Your task to perform on an android device: What's the news in Uruguay? Image 0: 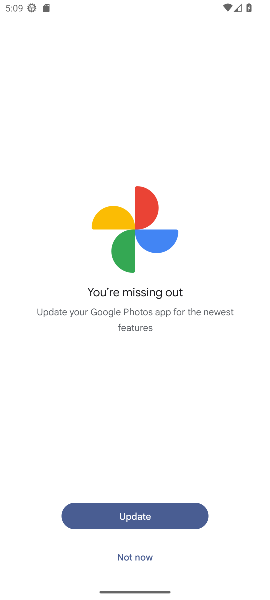
Step 0: press home button
Your task to perform on an android device: What's the news in Uruguay? Image 1: 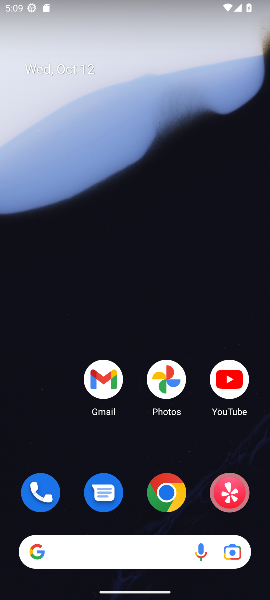
Step 1: click (165, 500)
Your task to perform on an android device: What's the news in Uruguay? Image 2: 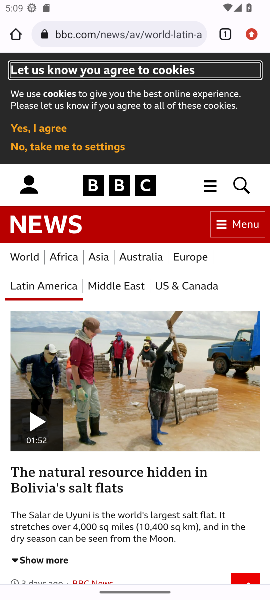
Step 2: click (106, 37)
Your task to perform on an android device: What's the news in Uruguay? Image 3: 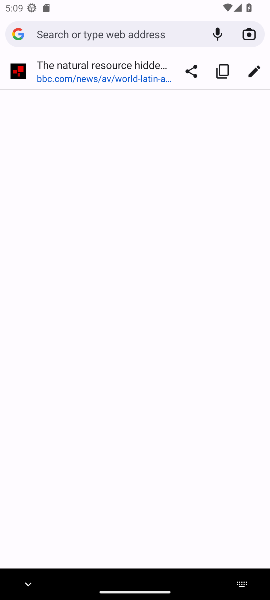
Step 3: type "Uruguay"
Your task to perform on an android device: What's the news in Uruguay? Image 4: 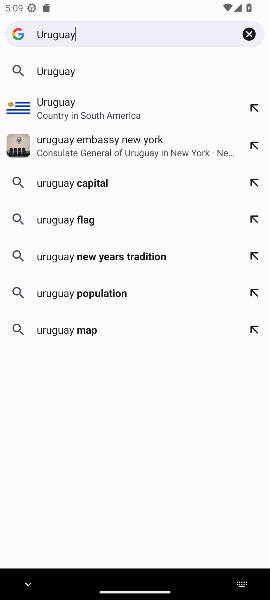
Step 4: type " "
Your task to perform on an android device: What's the news in Uruguay? Image 5: 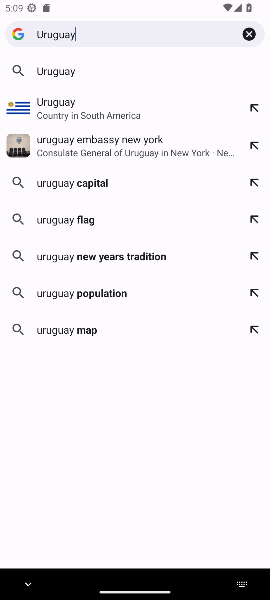
Step 5: click (58, 73)
Your task to perform on an android device: What's the news in Uruguay? Image 6: 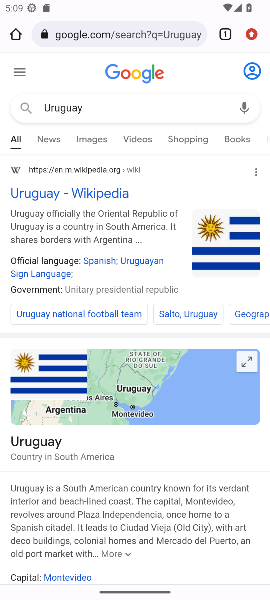
Step 6: click (46, 138)
Your task to perform on an android device: What's the news in Uruguay? Image 7: 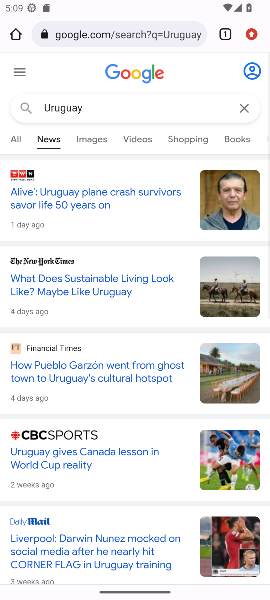
Step 7: click (58, 203)
Your task to perform on an android device: What's the news in Uruguay? Image 8: 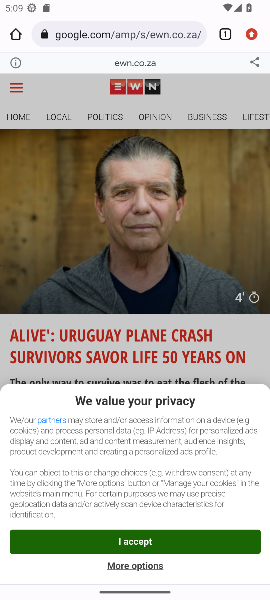
Step 8: task complete